Your task to perform on an android device: toggle wifi Image 0: 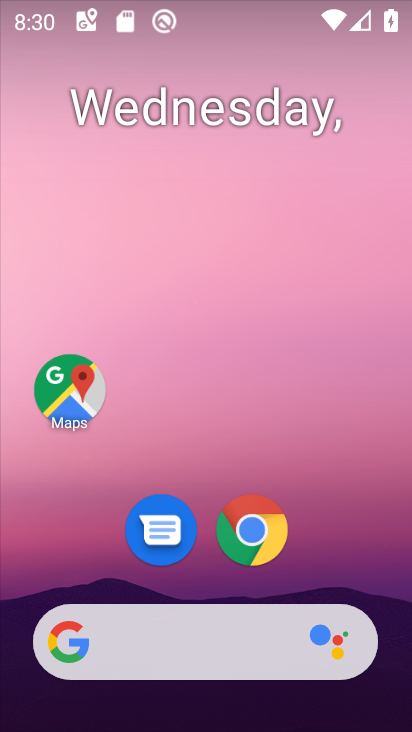
Step 0: drag from (383, 628) to (303, 60)
Your task to perform on an android device: toggle wifi Image 1: 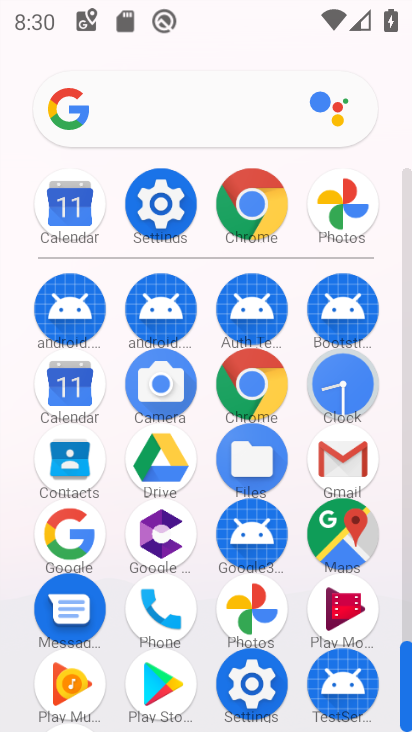
Step 1: click (174, 208)
Your task to perform on an android device: toggle wifi Image 2: 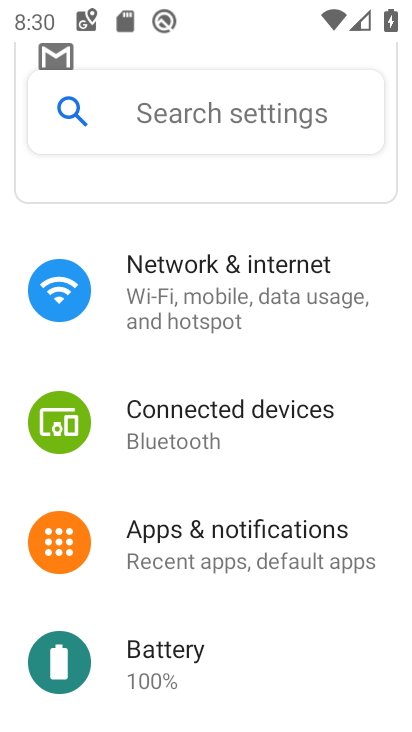
Step 2: click (194, 314)
Your task to perform on an android device: toggle wifi Image 3: 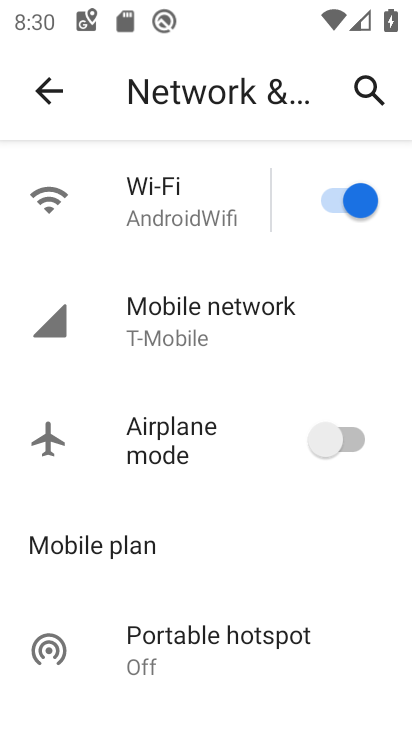
Step 3: click (226, 223)
Your task to perform on an android device: toggle wifi Image 4: 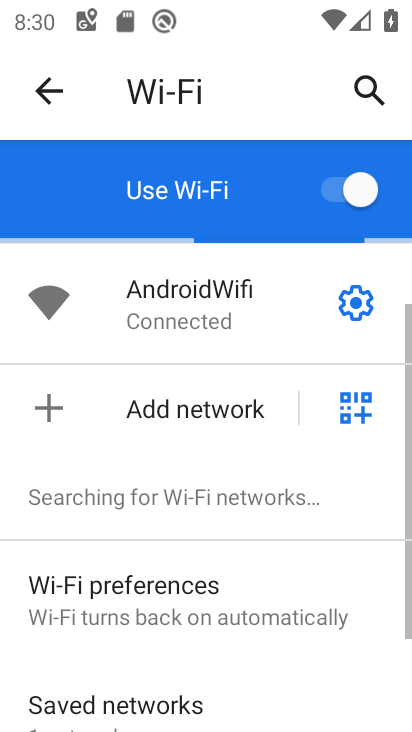
Step 4: click (313, 189)
Your task to perform on an android device: toggle wifi Image 5: 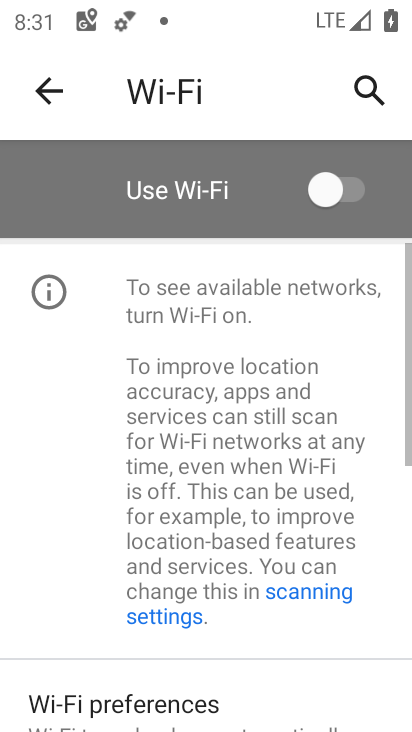
Step 5: task complete